Your task to perform on an android device: open chrome privacy settings Image 0: 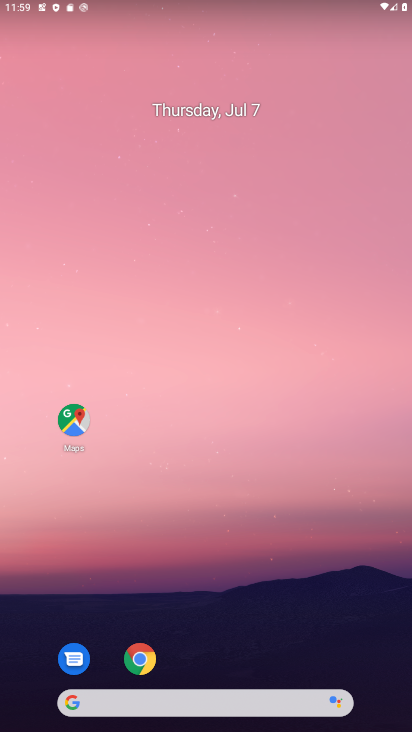
Step 0: click (140, 660)
Your task to perform on an android device: open chrome privacy settings Image 1: 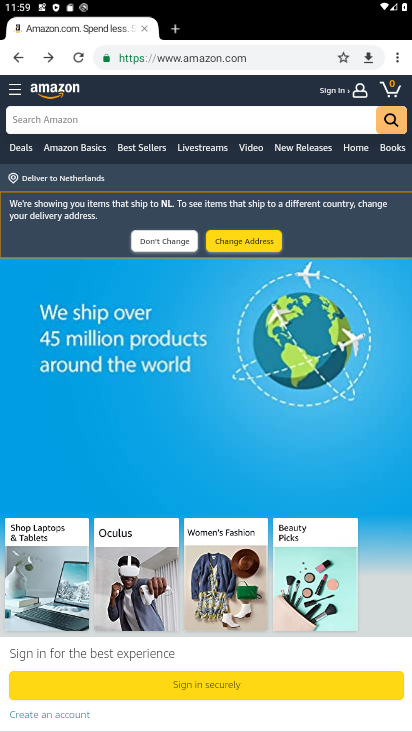
Step 1: click (394, 54)
Your task to perform on an android device: open chrome privacy settings Image 2: 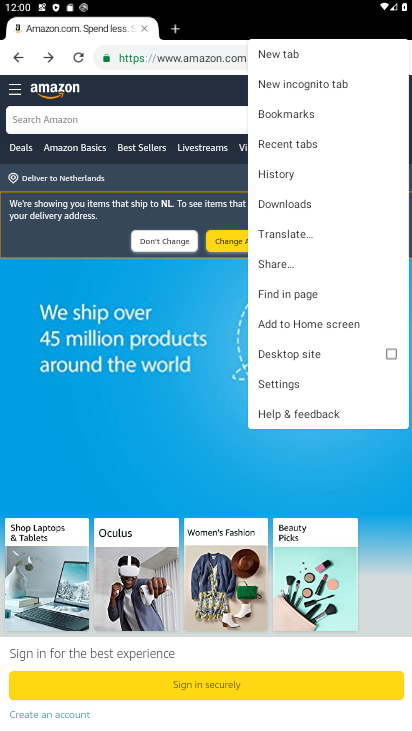
Step 2: click (278, 377)
Your task to perform on an android device: open chrome privacy settings Image 3: 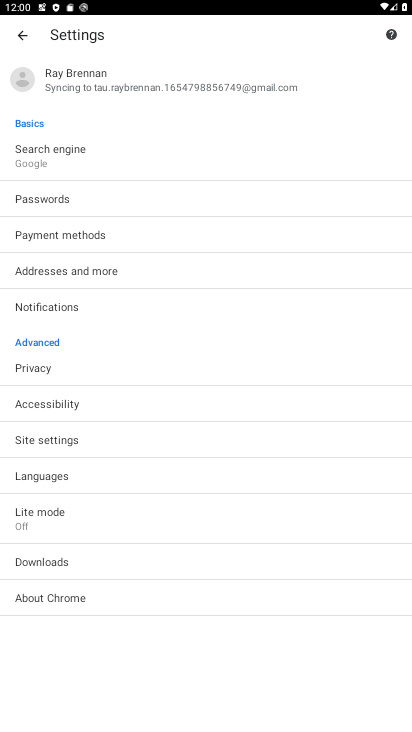
Step 3: click (28, 364)
Your task to perform on an android device: open chrome privacy settings Image 4: 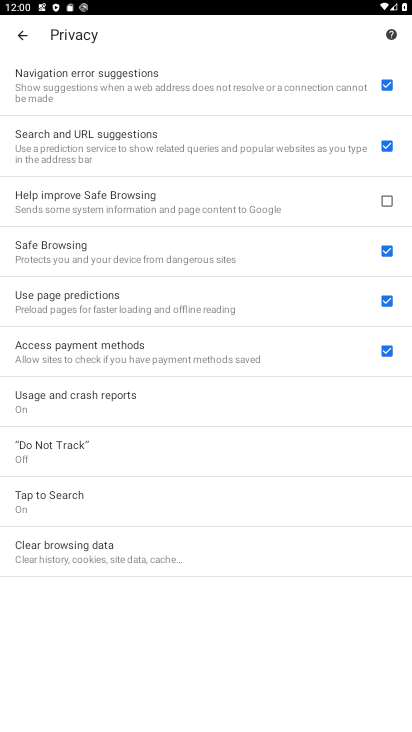
Step 4: task complete